Your task to perform on an android device: What is the recent news? Image 0: 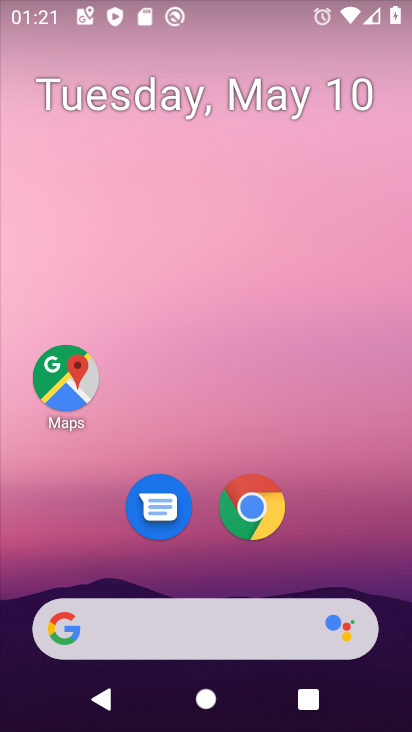
Step 0: drag from (249, 561) to (218, 226)
Your task to perform on an android device: What is the recent news? Image 1: 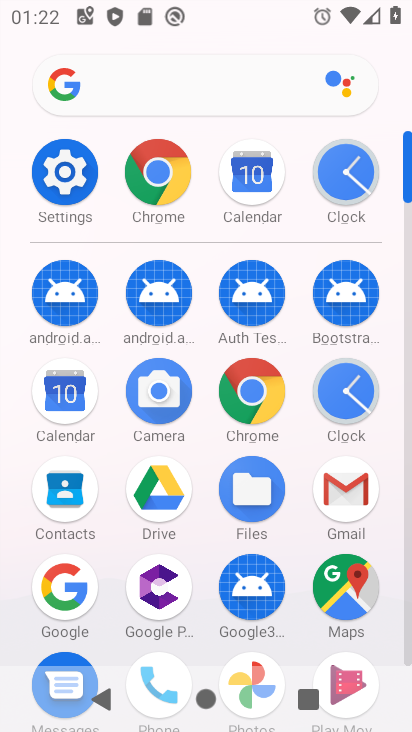
Step 1: click (62, 588)
Your task to perform on an android device: What is the recent news? Image 2: 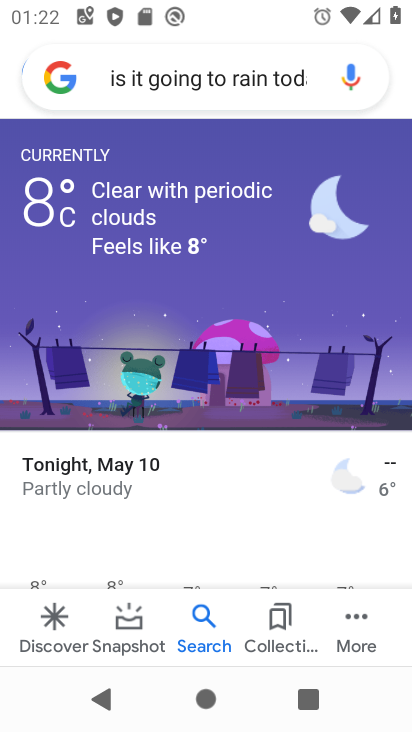
Step 2: click (260, 78)
Your task to perform on an android device: What is the recent news? Image 3: 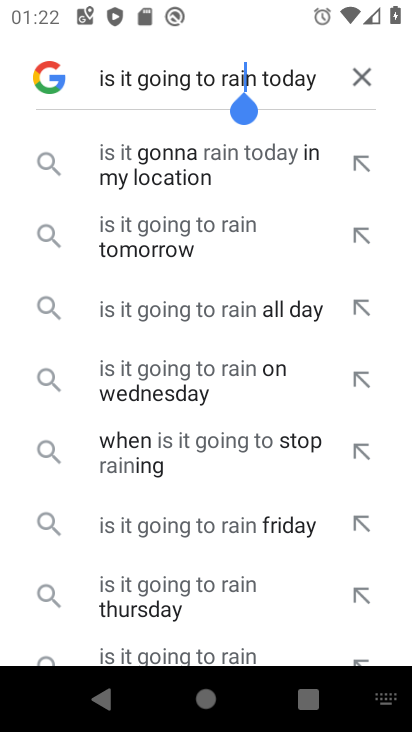
Step 3: click (371, 77)
Your task to perform on an android device: What is the recent news? Image 4: 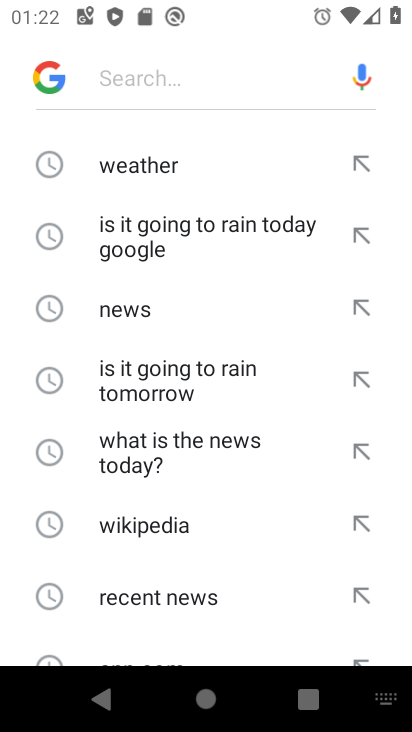
Step 4: drag from (197, 558) to (206, 258)
Your task to perform on an android device: What is the recent news? Image 5: 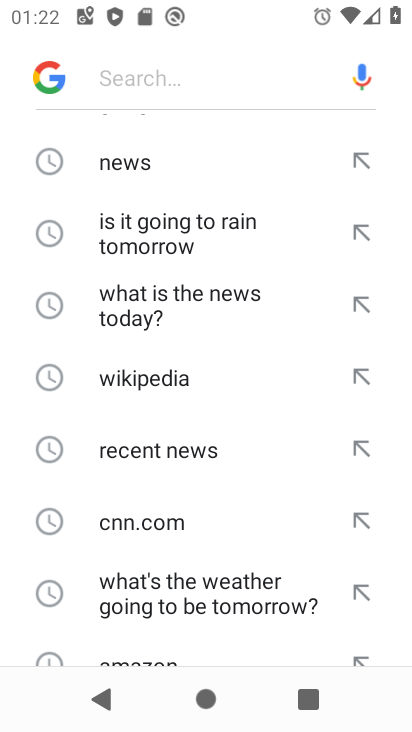
Step 5: click (143, 445)
Your task to perform on an android device: What is the recent news? Image 6: 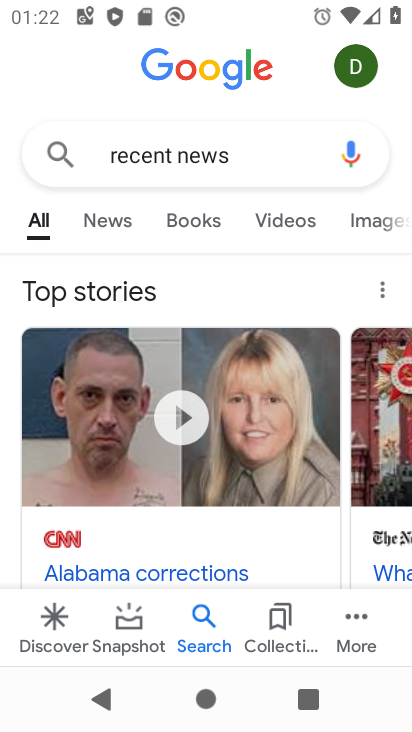
Step 6: task complete